Your task to perform on an android device: Clear all items from cart on bestbuy. Image 0: 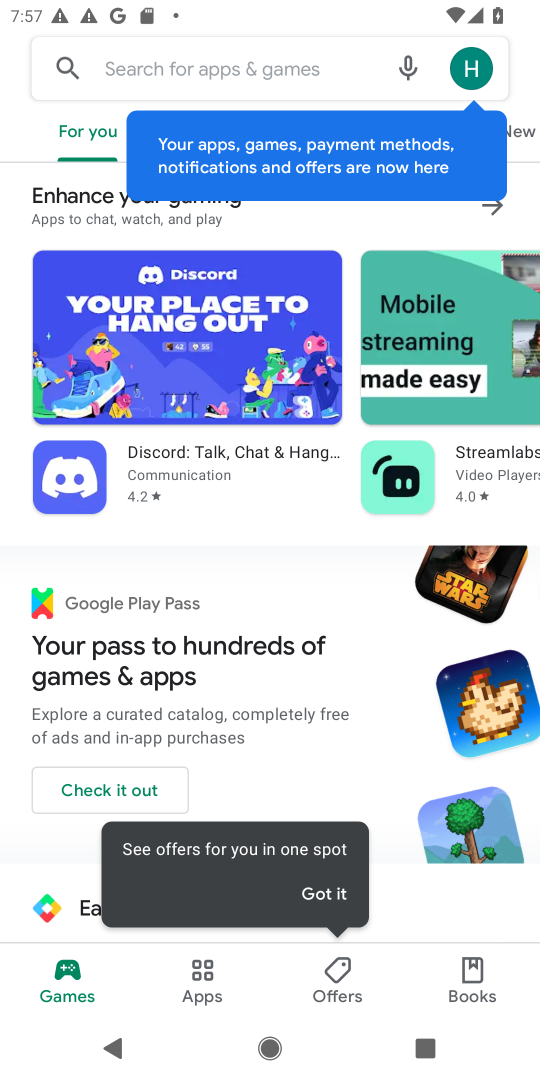
Step 0: press home button
Your task to perform on an android device: Clear all items from cart on bestbuy. Image 1: 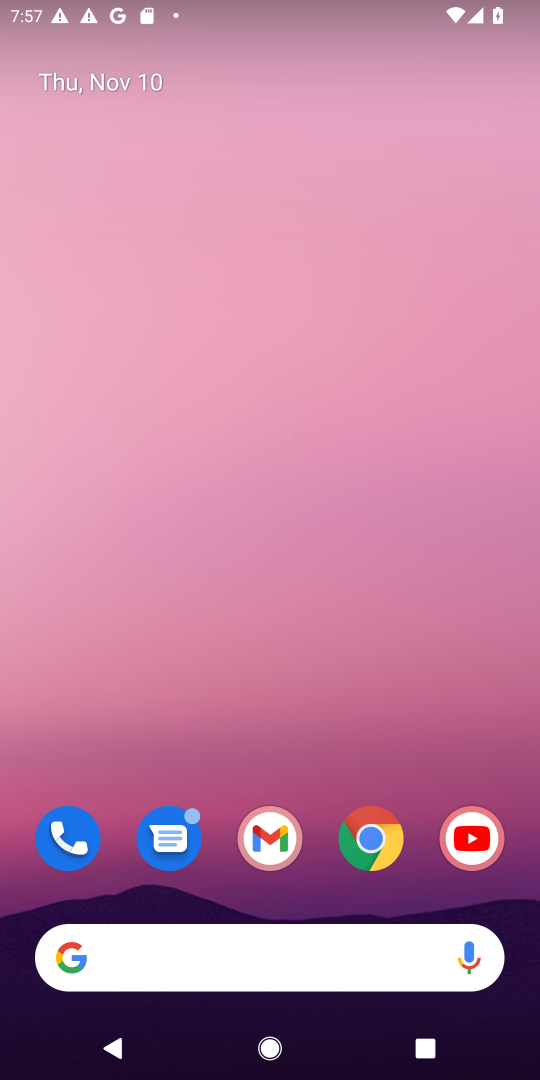
Step 1: drag from (306, 905) to (399, 110)
Your task to perform on an android device: Clear all items from cart on bestbuy. Image 2: 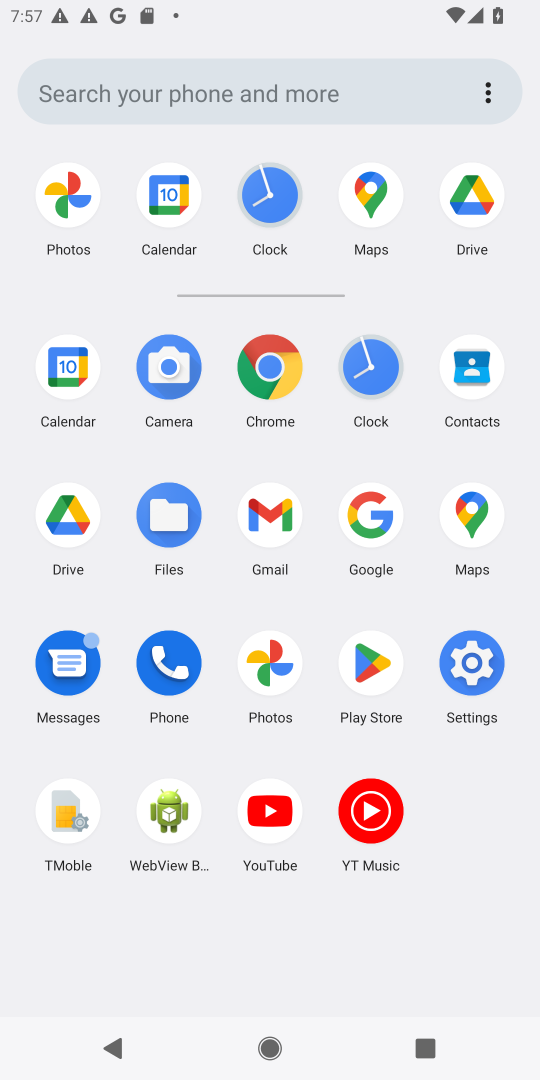
Step 2: click (273, 379)
Your task to perform on an android device: Clear all items from cart on bestbuy. Image 3: 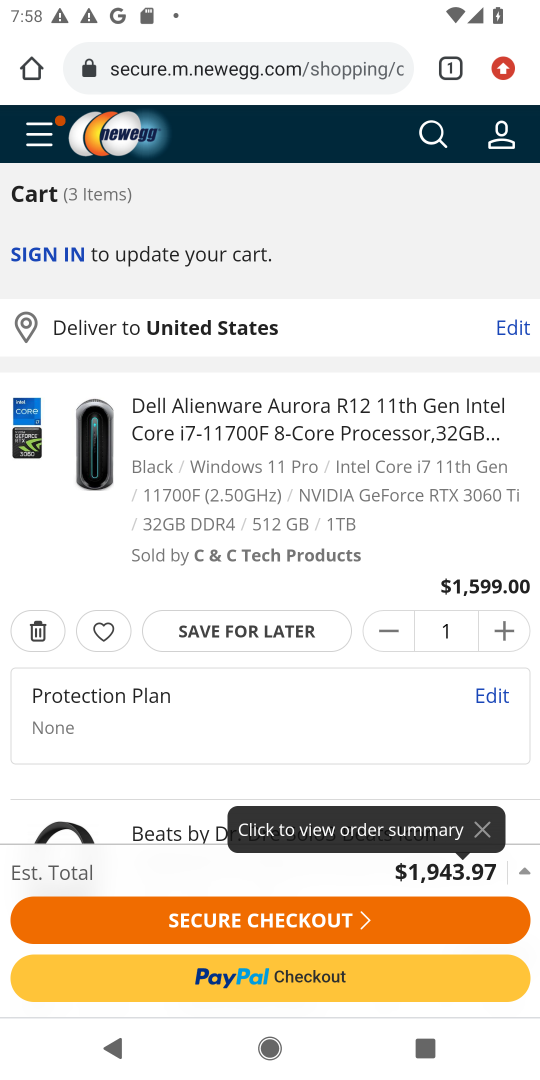
Step 3: click (285, 68)
Your task to perform on an android device: Clear all items from cart on bestbuy. Image 4: 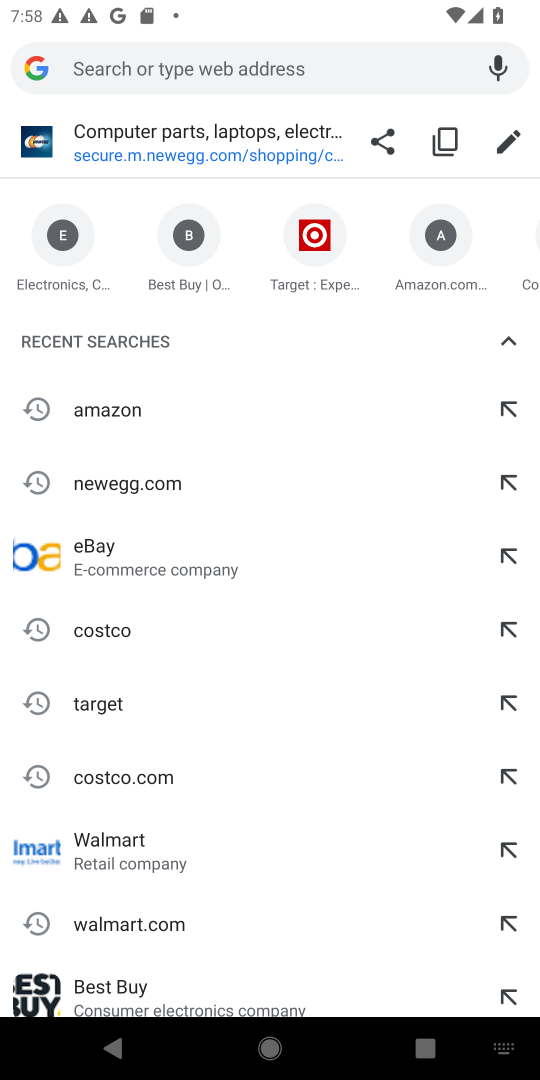
Step 4: type "bestbuy.com"
Your task to perform on an android device: Clear all items from cart on bestbuy. Image 5: 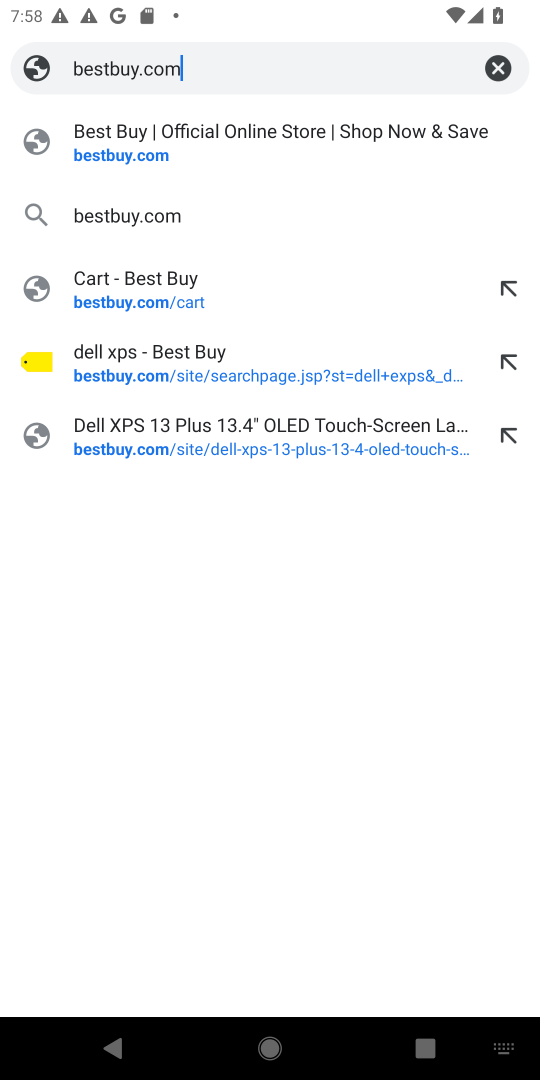
Step 5: press enter
Your task to perform on an android device: Clear all items from cart on bestbuy. Image 6: 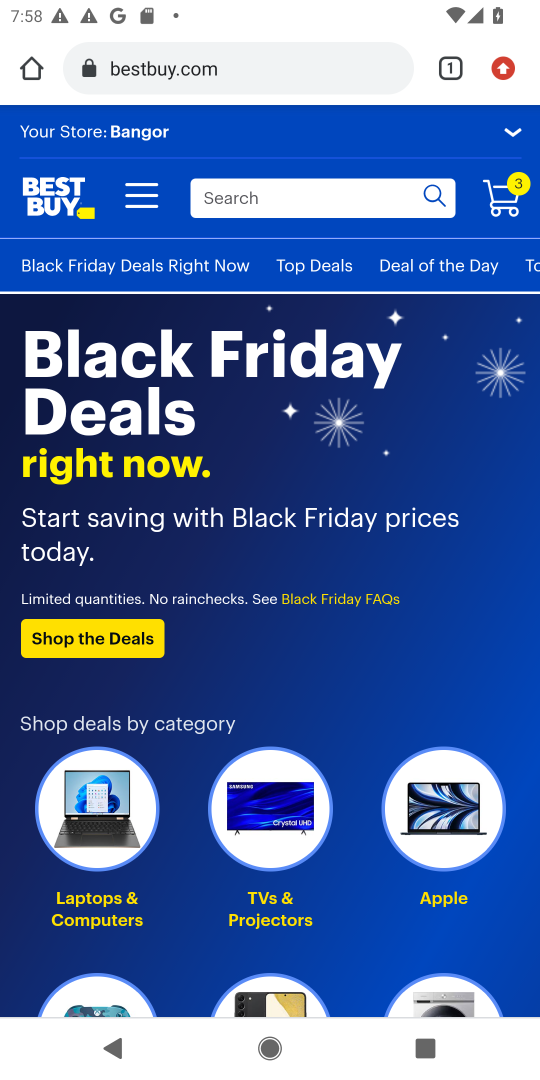
Step 6: click (519, 191)
Your task to perform on an android device: Clear all items from cart on bestbuy. Image 7: 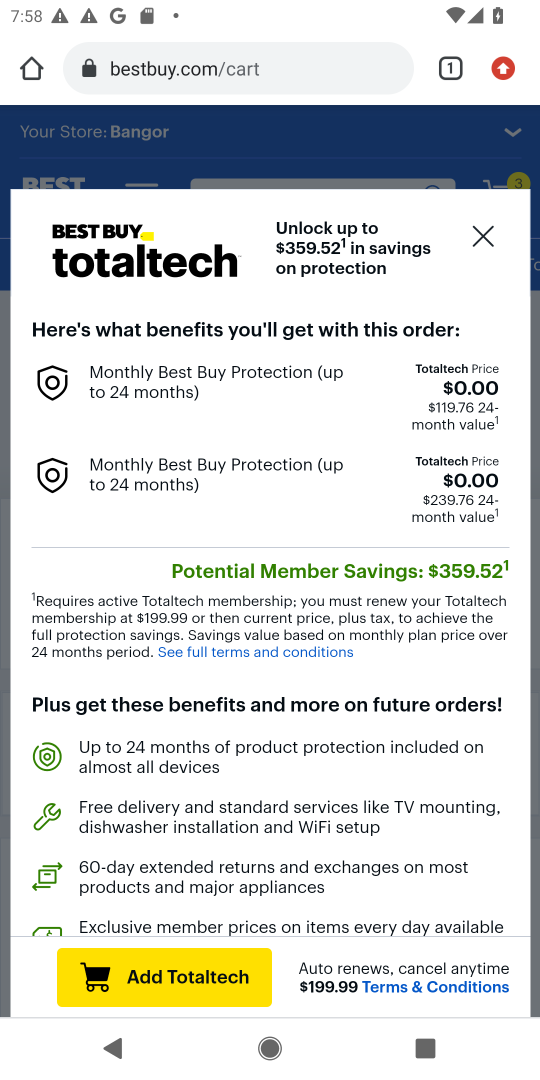
Step 7: click (473, 238)
Your task to perform on an android device: Clear all items from cart on bestbuy. Image 8: 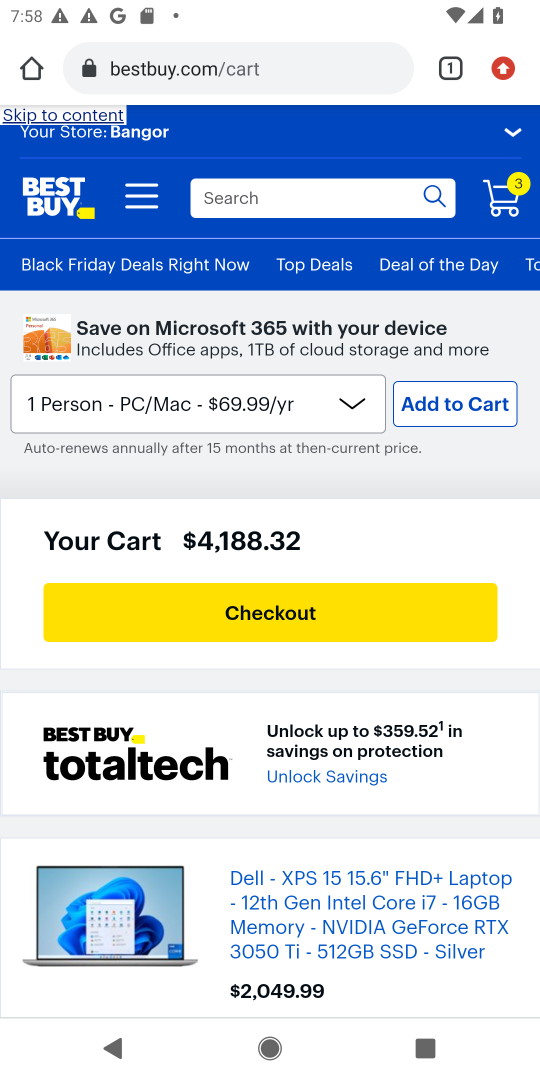
Step 8: drag from (285, 552) to (283, 239)
Your task to perform on an android device: Clear all items from cart on bestbuy. Image 9: 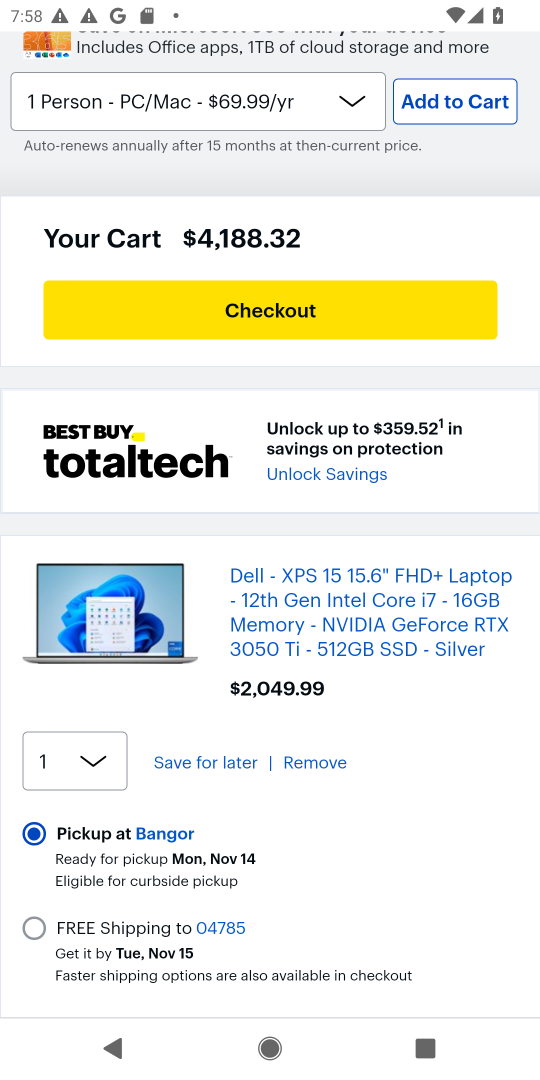
Step 9: drag from (397, 887) to (411, 198)
Your task to perform on an android device: Clear all items from cart on bestbuy. Image 10: 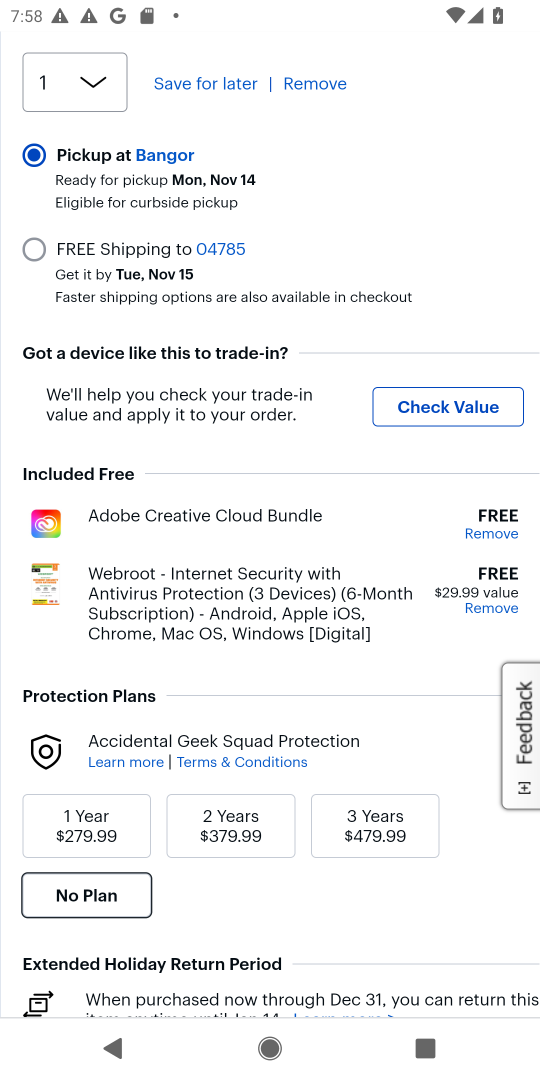
Step 10: drag from (210, 390) to (276, 1057)
Your task to perform on an android device: Clear all items from cart on bestbuy. Image 11: 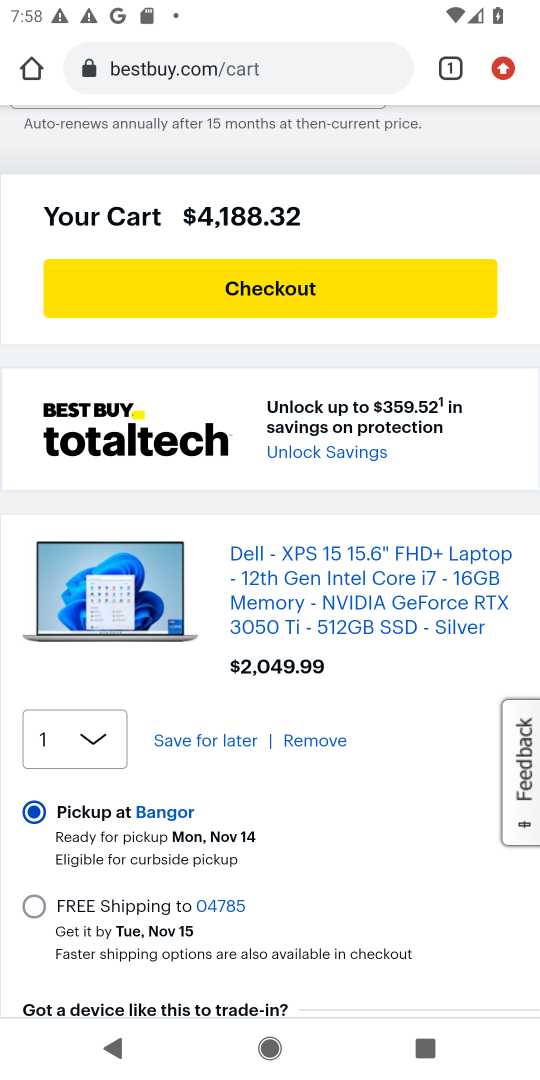
Step 11: click (310, 744)
Your task to perform on an android device: Clear all items from cart on bestbuy. Image 12: 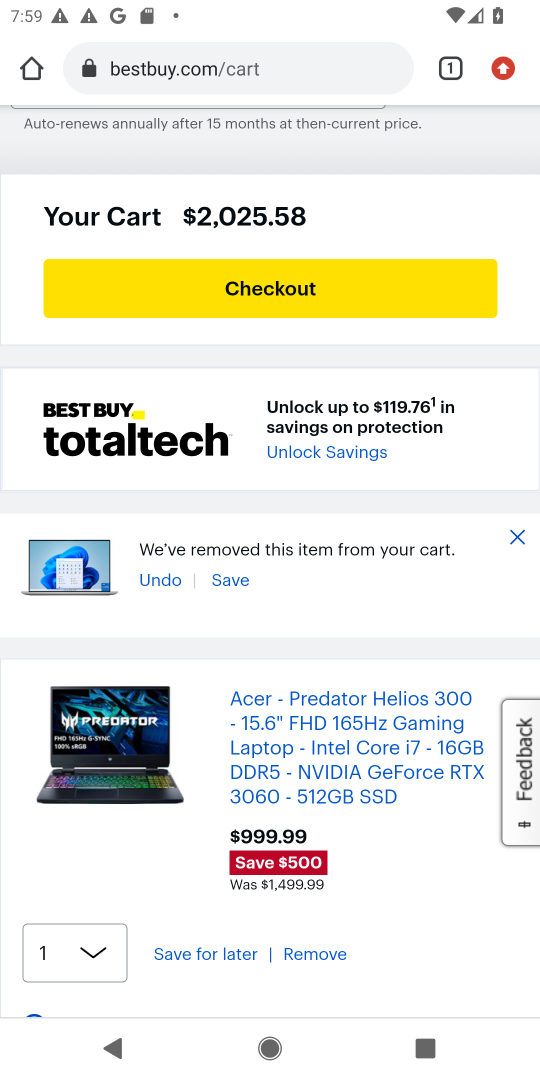
Step 12: drag from (425, 930) to (387, 621)
Your task to perform on an android device: Clear all items from cart on bestbuy. Image 13: 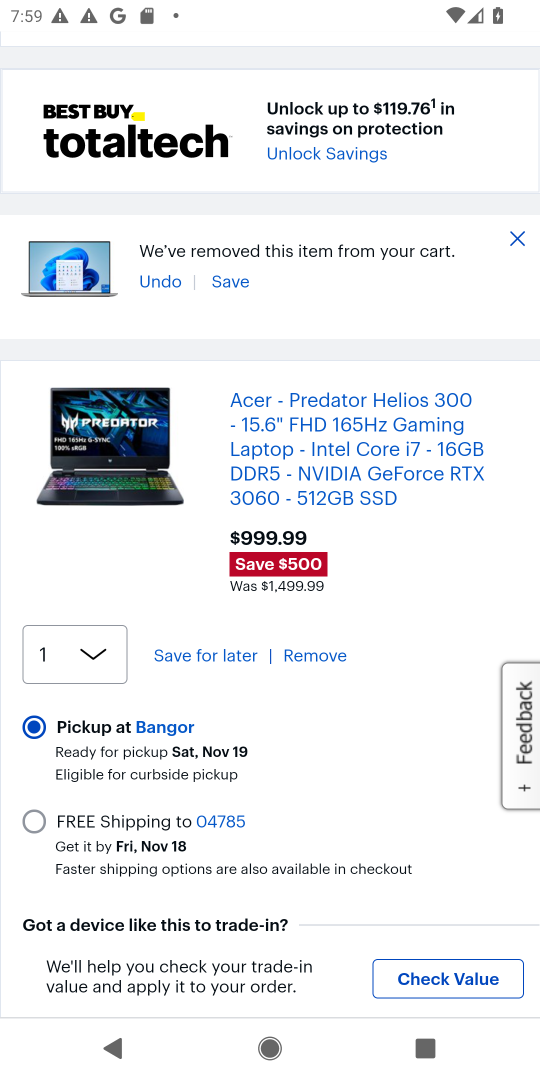
Step 13: click (296, 663)
Your task to perform on an android device: Clear all items from cart on bestbuy. Image 14: 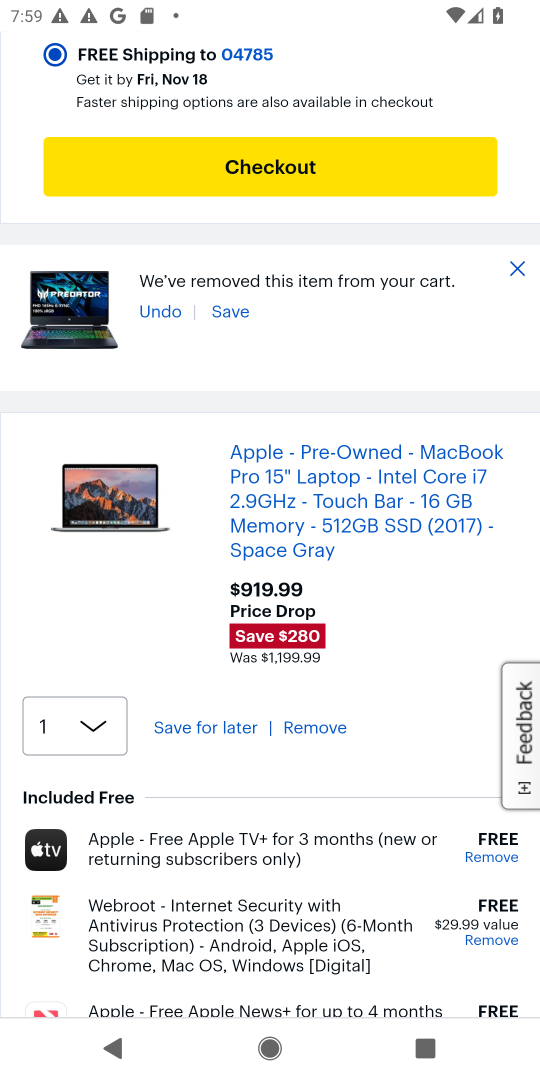
Step 14: click (327, 730)
Your task to perform on an android device: Clear all items from cart on bestbuy. Image 15: 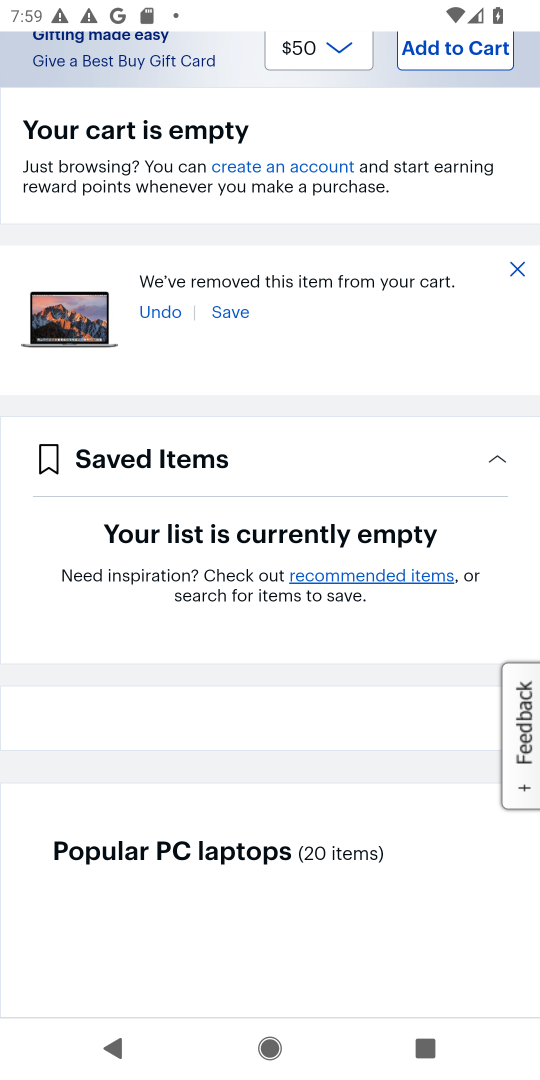
Step 15: task complete